Your task to perform on an android device: Open accessibility settings Image 0: 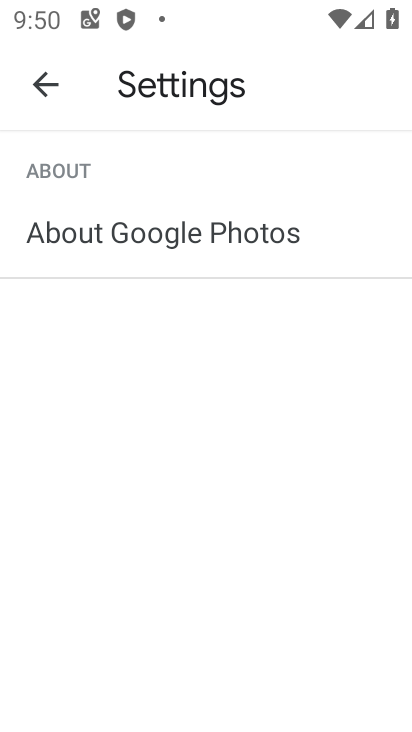
Step 0: press home button
Your task to perform on an android device: Open accessibility settings Image 1: 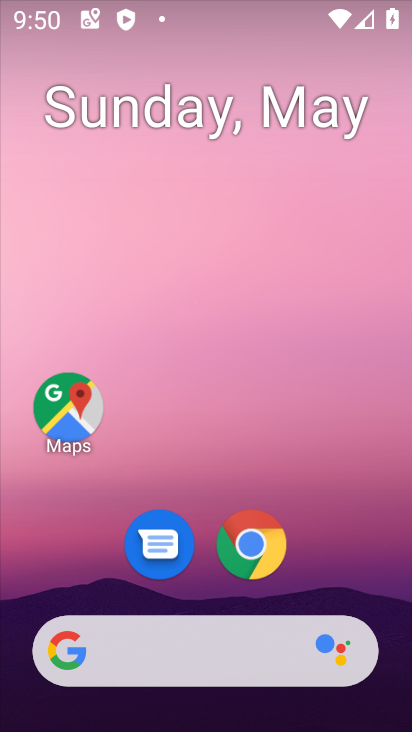
Step 1: drag from (375, 565) to (338, 1)
Your task to perform on an android device: Open accessibility settings Image 2: 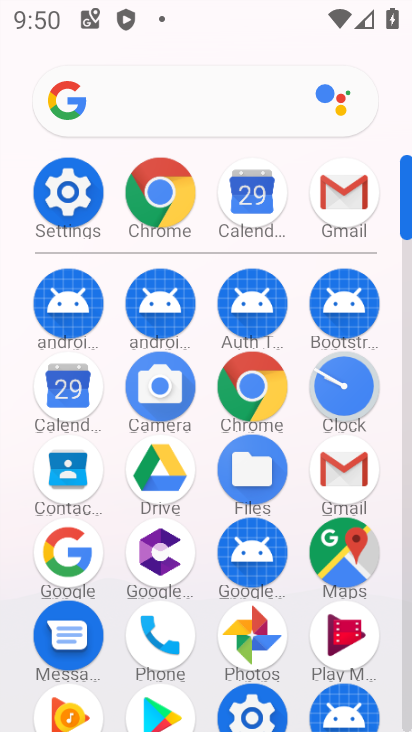
Step 2: click (66, 190)
Your task to perform on an android device: Open accessibility settings Image 3: 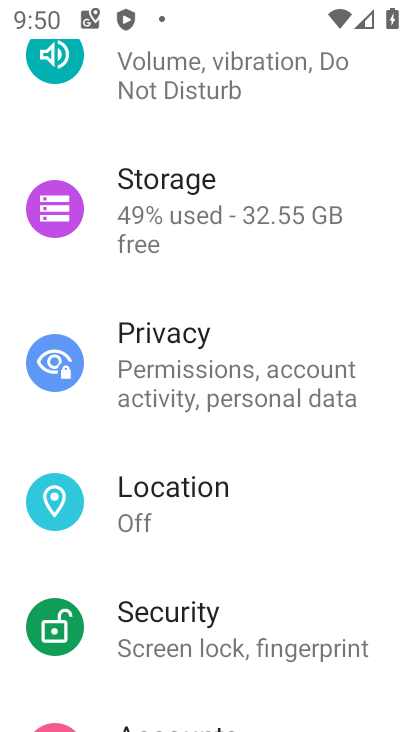
Step 3: drag from (275, 191) to (272, 630)
Your task to perform on an android device: Open accessibility settings Image 4: 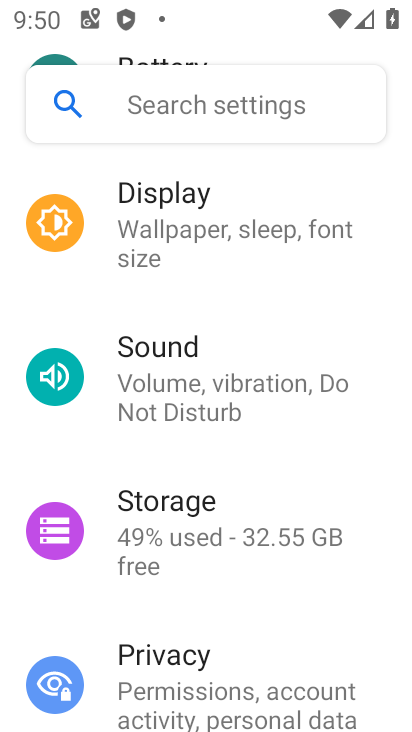
Step 4: drag from (243, 118) to (217, 577)
Your task to perform on an android device: Open accessibility settings Image 5: 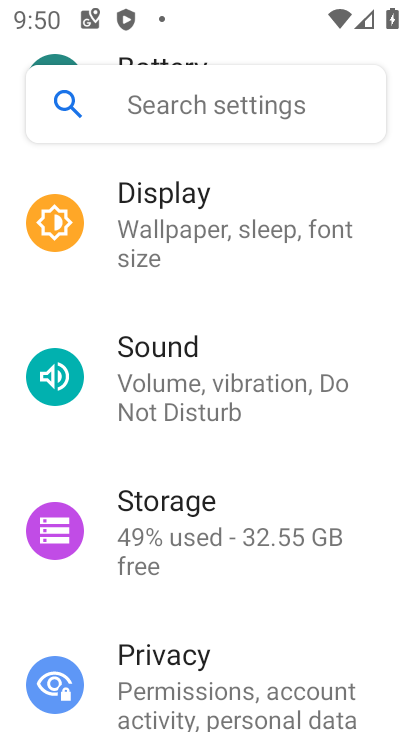
Step 5: drag from (176, 187) to (171, 604)
Your task to perform on an android device: Open accessibility settings Image 6: 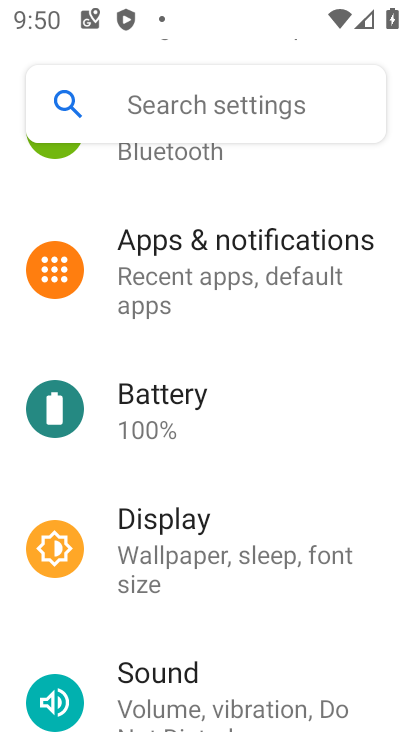
Step 6: drag from (191, 224) to (203, 680)
Your task to perform on an android device: Open accessibility settings Image 7: 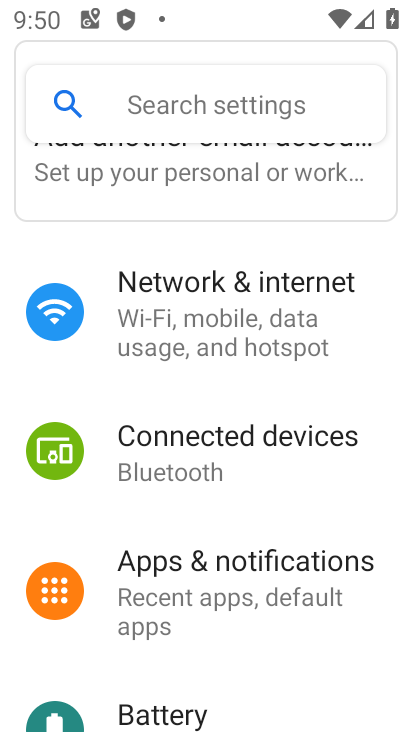
Step 7: drag from (192, 635) to (138, 64)
Your task to perform on an android device: Open accessibility settings Image 8: 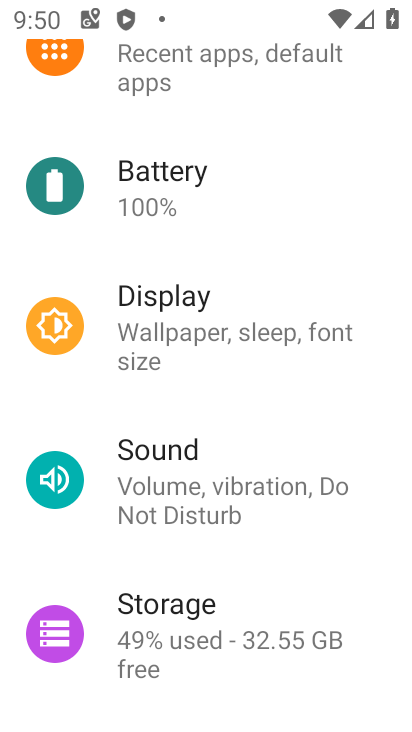
Step 8: drag from (270, 555) to (289, 0)
Your task to perform on an android device: Open accessibility settings Image 9: 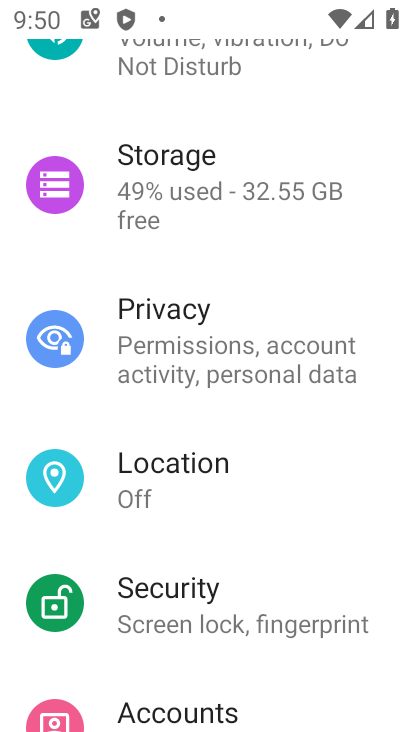
Step 9: drag from (301, 581) to (303, 56)
Your task to perform on an android device: Open accessibility settings Image 10: 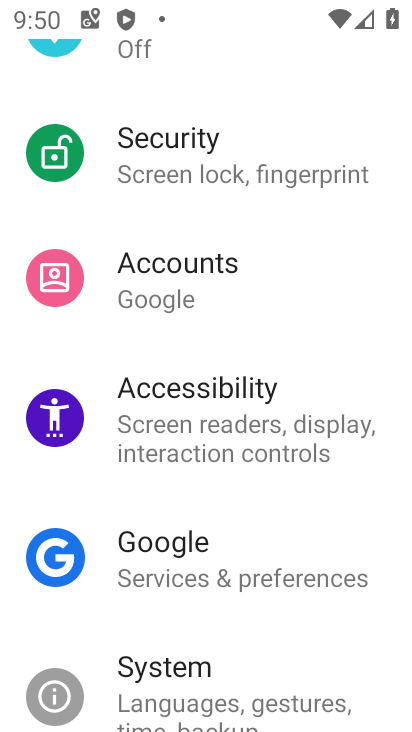
Step 10: drag from (274, 572) to (253, 126)
Your task to perform on an android device: Open accessibility settings Image 11: 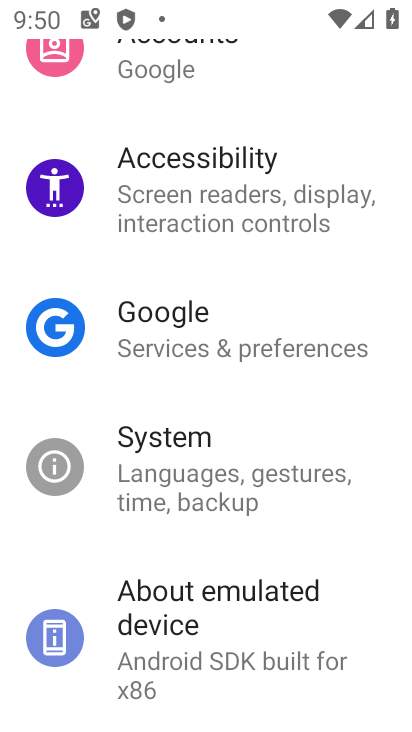
Step 11: click (220, 181)
Your task to perform on an android device: Open accessibility settings Image 12: 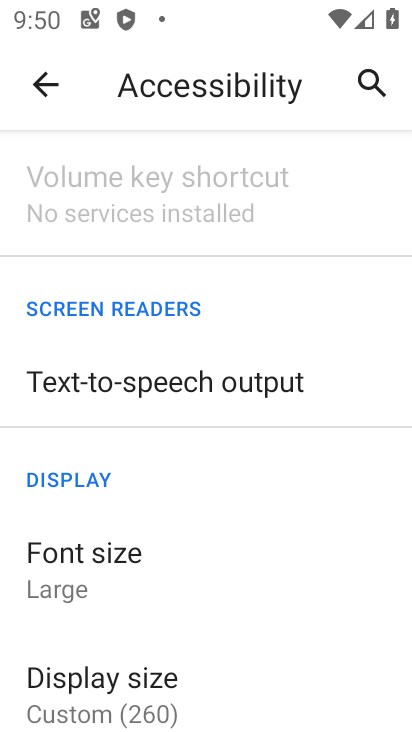
Step 12: task complete